Your task to perform on an android device: Open the calendar and show me this week's events Image 0: 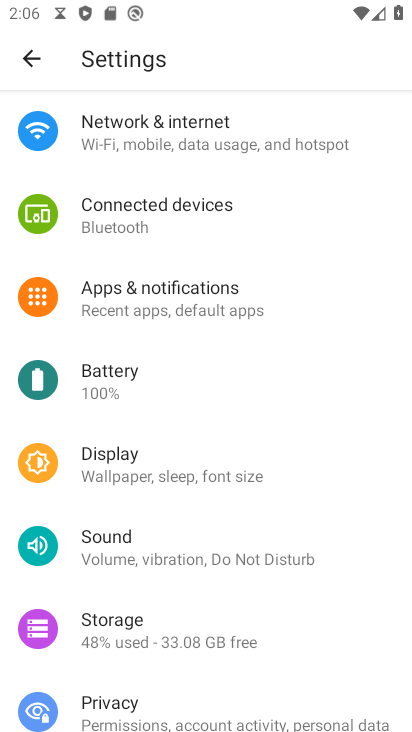
Step 0: press home button
Your task to perform on an android device: Open the calendar and show me this week's events Image 1: 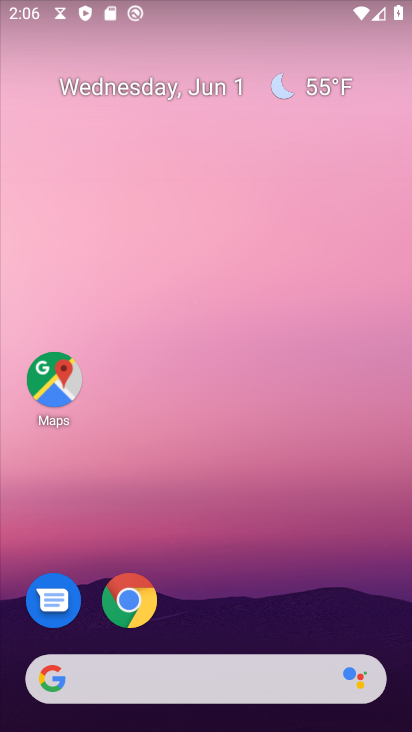
Step 1: drag from (252, 595) to (204, 108)
Your task to perform on an android device: Open the calendar and show me this week's events Image 2: 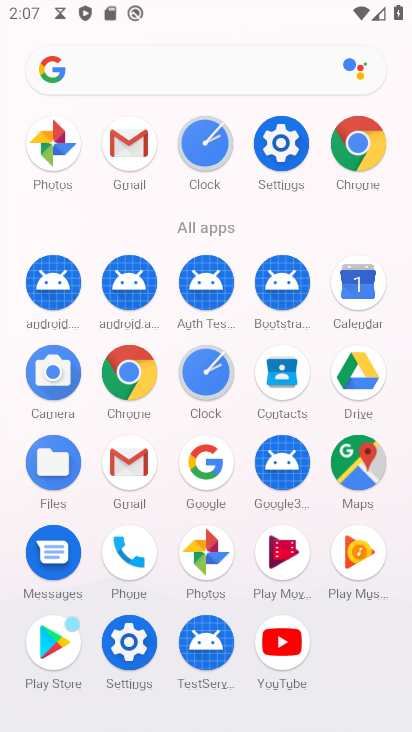
Step 2: click (359, 310)
Your task to perform on an android device: Open the calendar and show me this week's events Image 3: 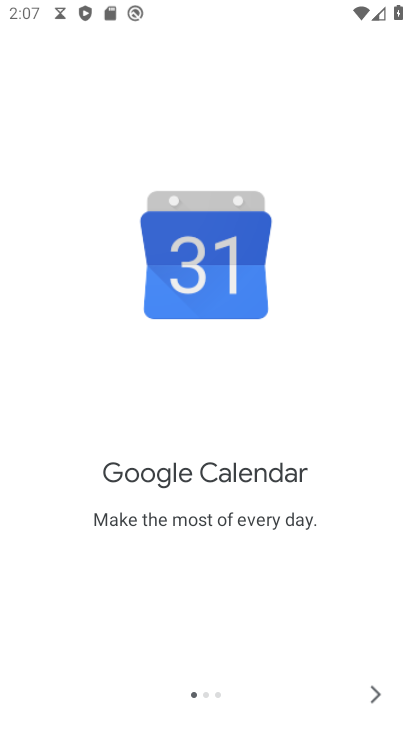
Step 3: click (372, 697)
Your task to perform on an android device: Open the calendar and show me this week's events Image 4: 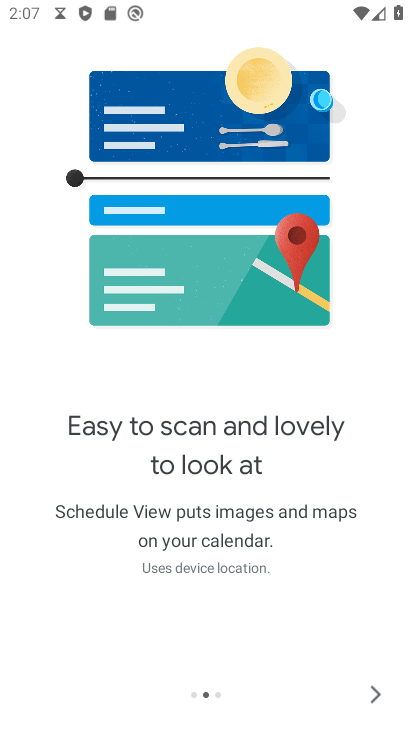
Step 4: click (372, 697)
Your task to perform on an android device: Open the calendar and show me this week's events Image 5: 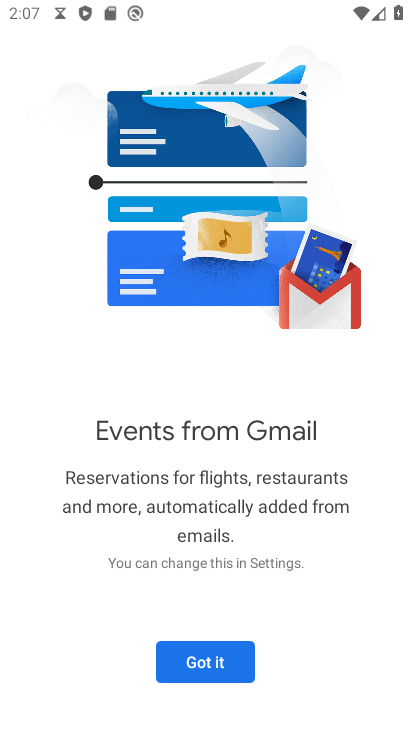
Step 5: click (193, 669)
Your task to perform on an android device: Open the calendar and show me this week's events Image 6: 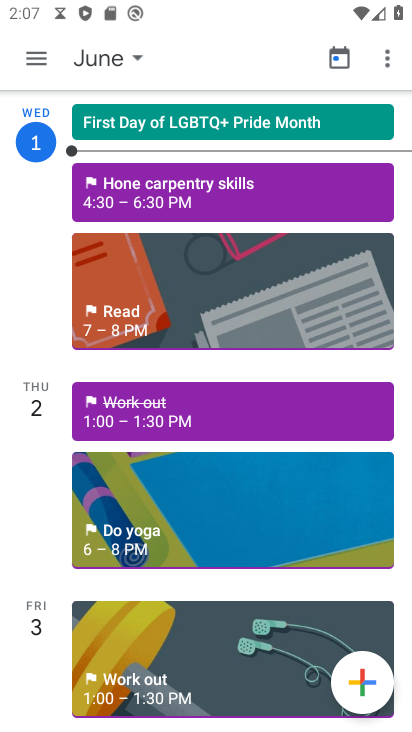
Step 6: click (31, 59)
Your task to perform on an android device: Open the calendar and show me this week's events Image 7: 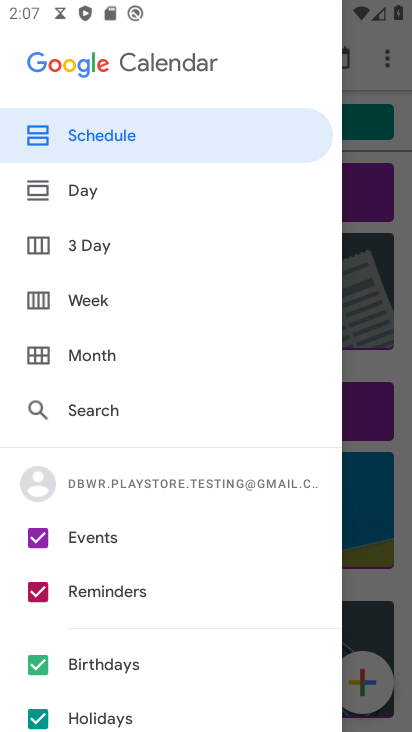
Step 7: click (39, 725)
Your task to perform on an android device: Open the calendar and show me this week's events Image 8: 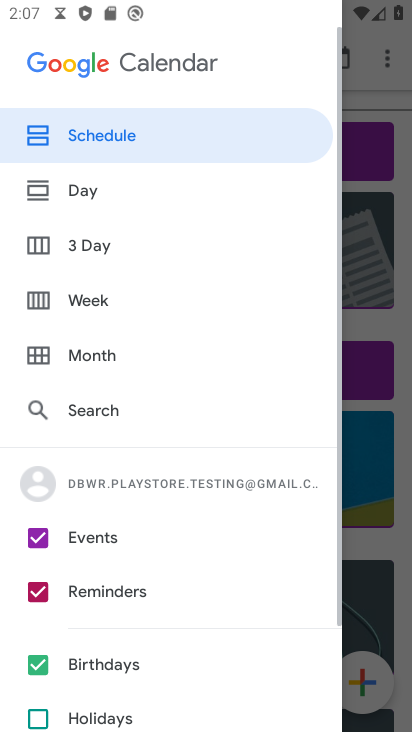
Step 8: click (34, 667)
Your task to perform on an android device: Open the calendar and show me this week's events Image 9: 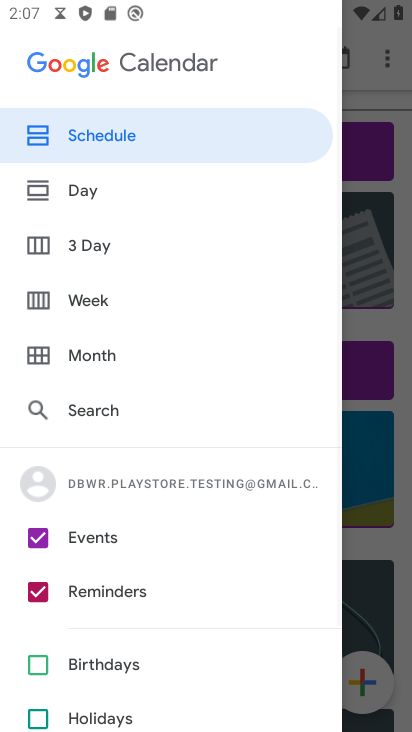
Step 9: click (35, 585)
Your task to perform on an android device: Open the calendar and show me this week's events Image 10: 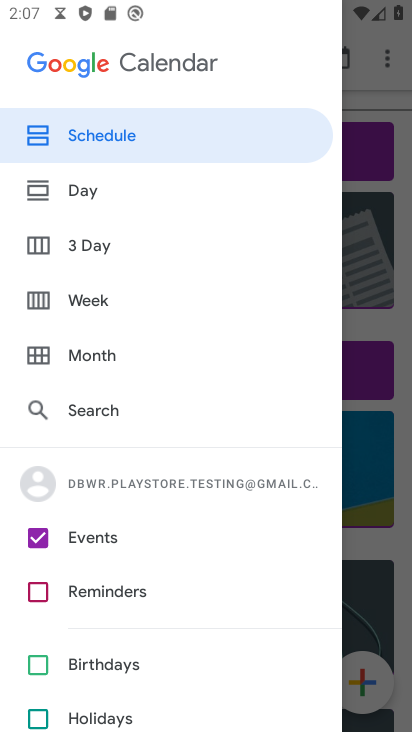
Step 10: click (76, 303)
Your task to perform on an android device: Open the calendar and show me this week's events Image 11: 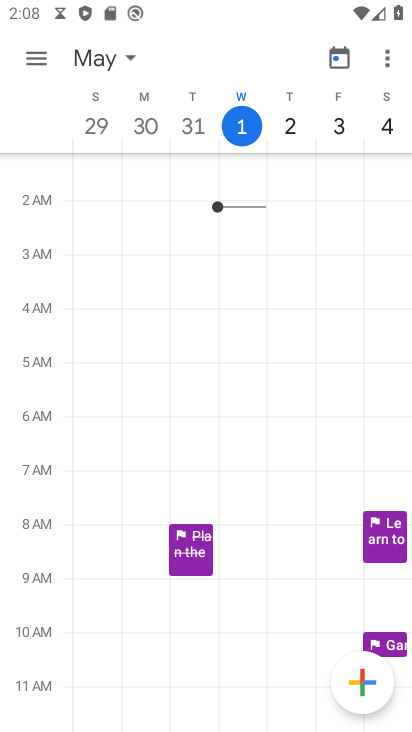
Step 11: task complete